Your task to perform on an android device: Turn on the flashlight Image 0: 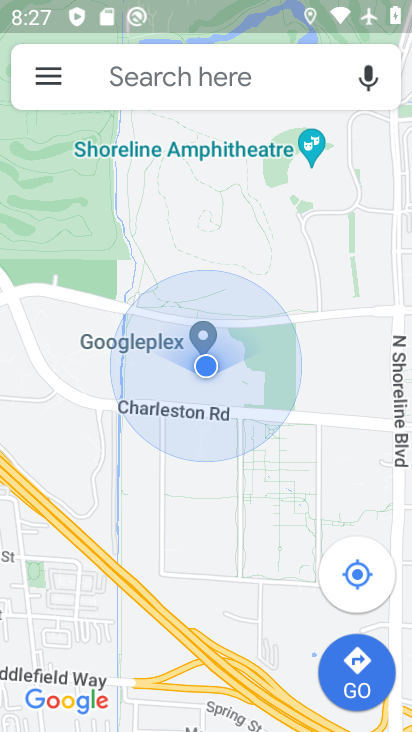
Step 0: press home button
Your task to perform on an android device: Turn on the flashlight Image 1: 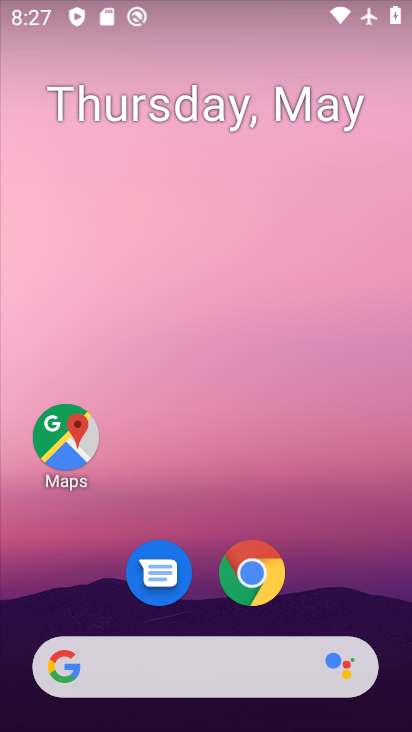
Step 1: drag from (320, 582) to (311, 25)
Your task to perform on an android device: Turn on the flashlight Image 2: 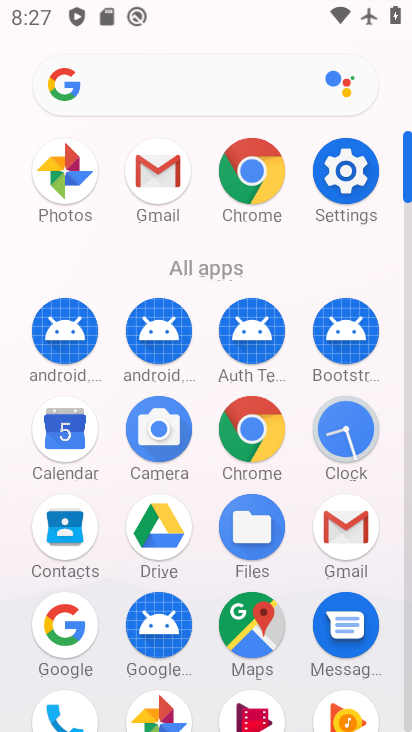
Step 2: click (351, 184)
Your task to perform on an android device: Turn on the flashlight Image 3: 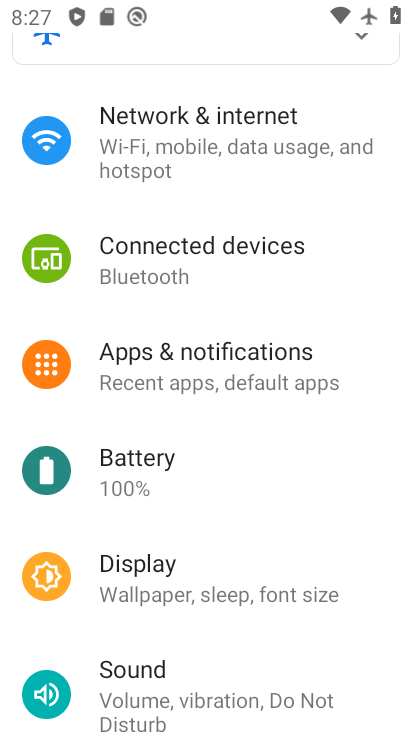
Step 3: drag from (284, 118) to (264, 466)
Your task to perform on an android device: Turn on the flashlight Image 4: 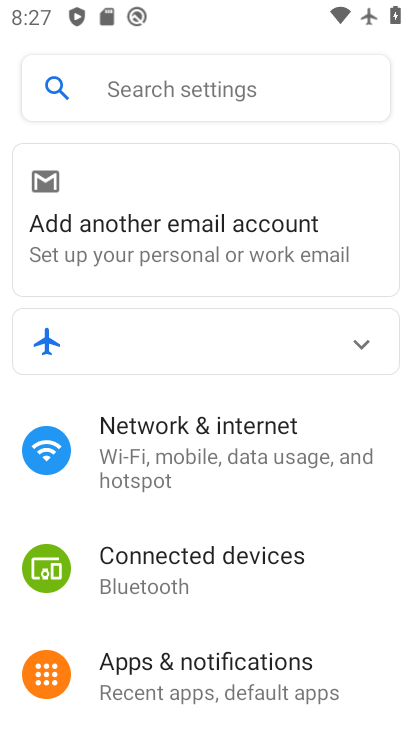
Step 4: click (209, 88)
Your task to perform on an android device: Turn on the flashlight Image 5: 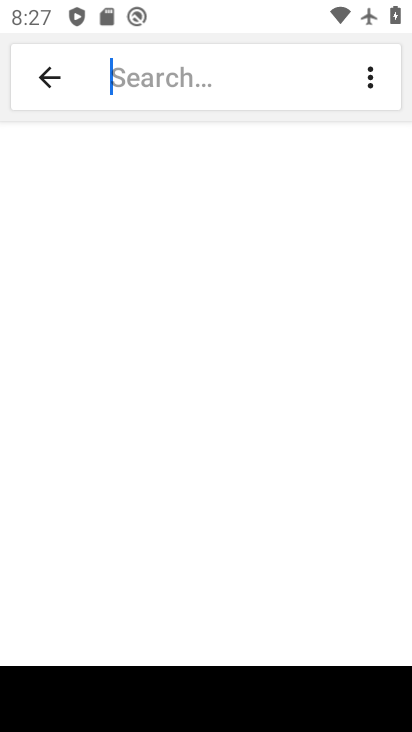
Step 5: type "Flashlight"
Your task to perform on an android device: Turn on the flashlight Image 6: 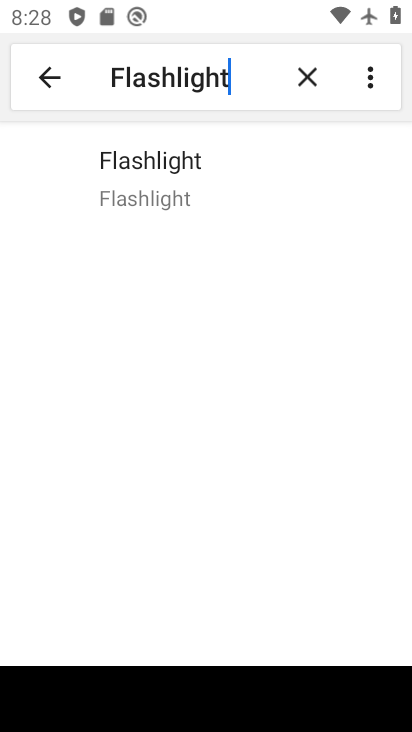
Step 6: click (186, 201)
Your task to perform on an android device: Turn on the flashlight Image 7: 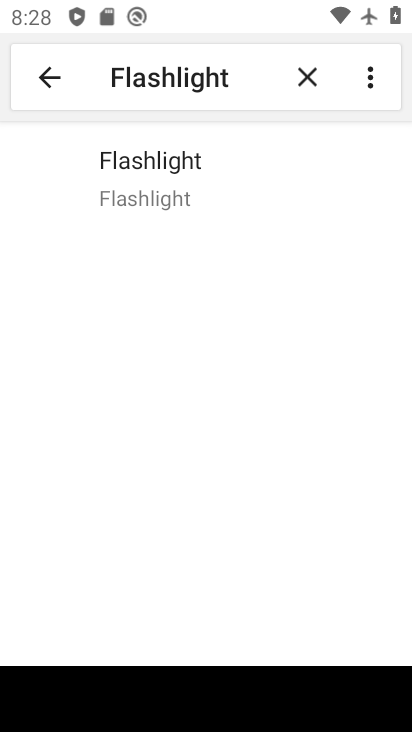
Step 7: task complete